Your task to perform on an android device: turn pop-ups off in chrome Image 0: 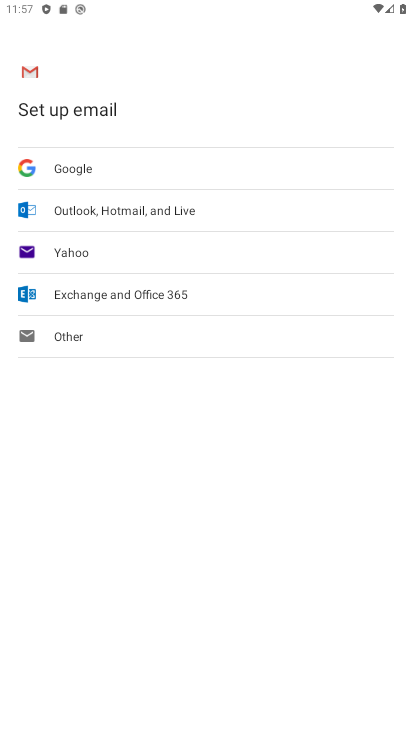
Step 0: press back button
Your task to perform on an android device: turn pop-ups off in chrome Image 1: 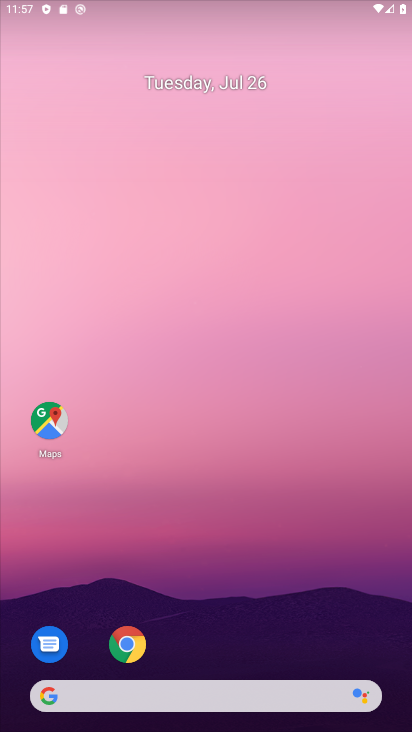
Step 1: drag from (210, 610) to (191, 235)
Your task to perform on an android device: turn pop-ups off in chrome Image 2: 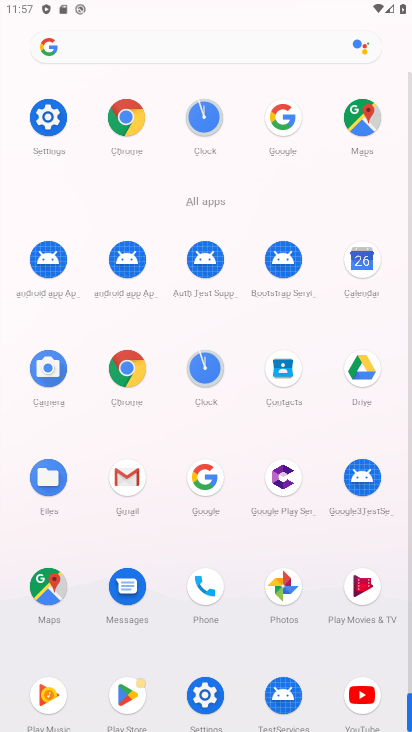
Step 2: click (133, 126)
Your task to perform on an android device: turn pop-ups off in chrome Image 3: 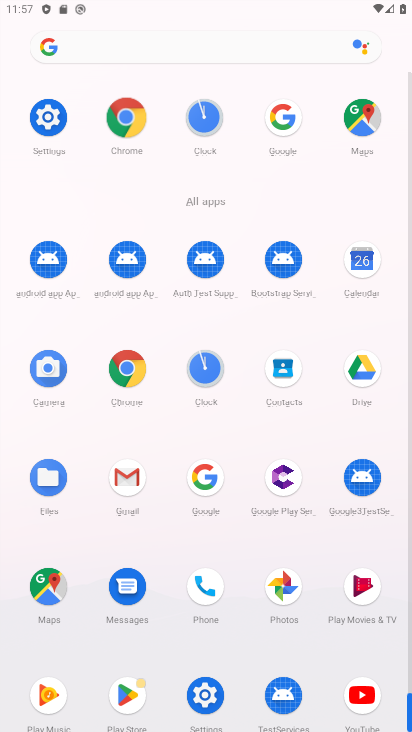
Step 3: click (135, 123)
Your task to perform on an android device: turn pop-ups off in chrome Image 4: 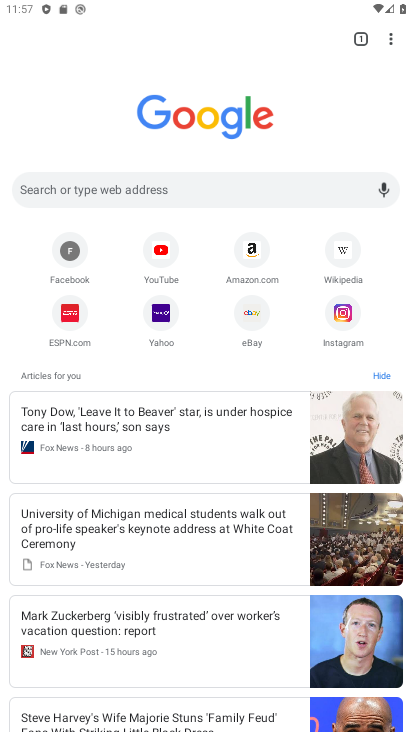
Step 4: drag from (392, 47) to (230, 333)
Your task to perform on an android device: turn pop-ups off in chrome Image 5: 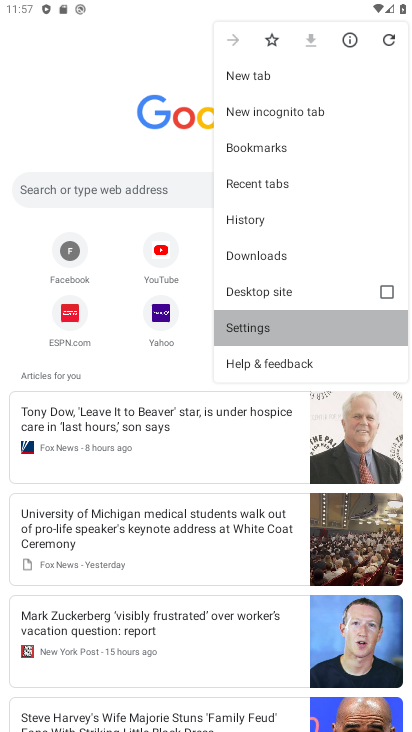
Step 5: click (235, 335)
Your task to perform on an android device: turn pop-ups off in chrome Image 6: 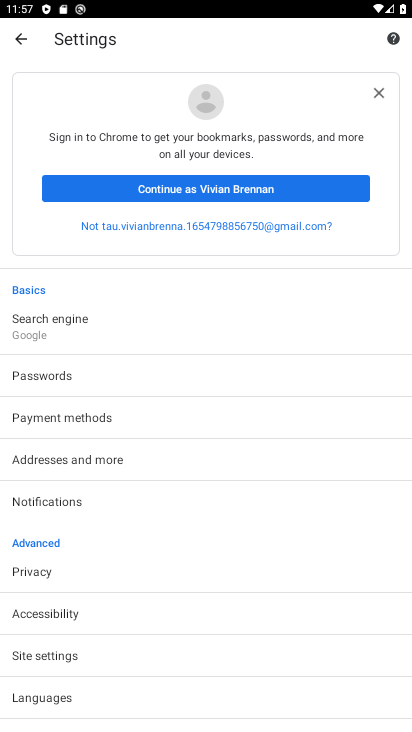
Step 6: drag from (135, 550) to (166, 188)
Your task to perform on an android device: turn pop-ups off in chrome Image 7: 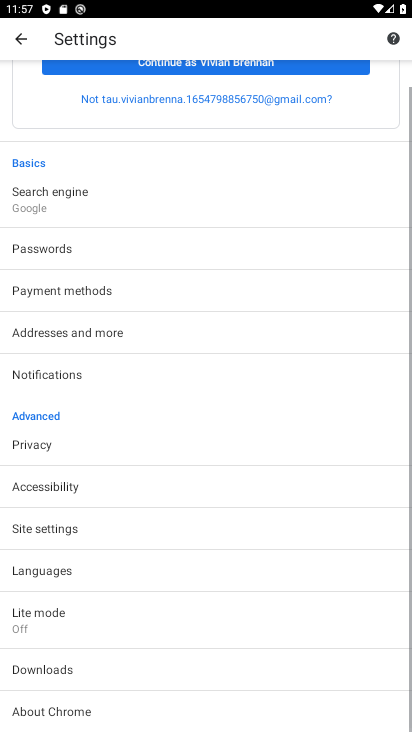
Step 7: drag from (199, 496) to (222, 230)
Your task to perform on an android device: turn pop-ups off in chrome Image 8: 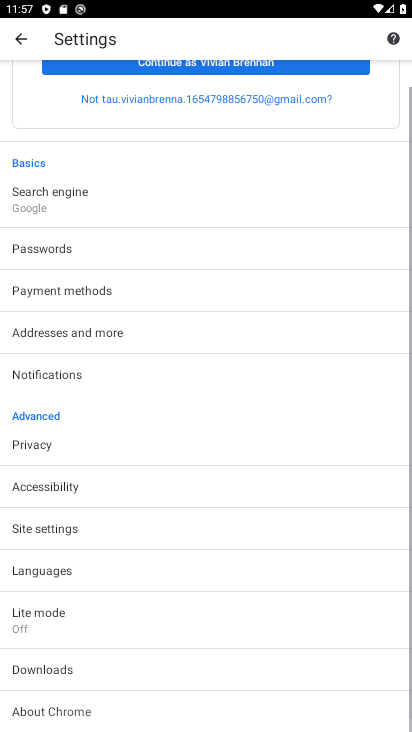
Step 8: drag from (249, 545) to (278, 201)
Your task to perform on an android device: turn pop-ups off in chrome Image 9: 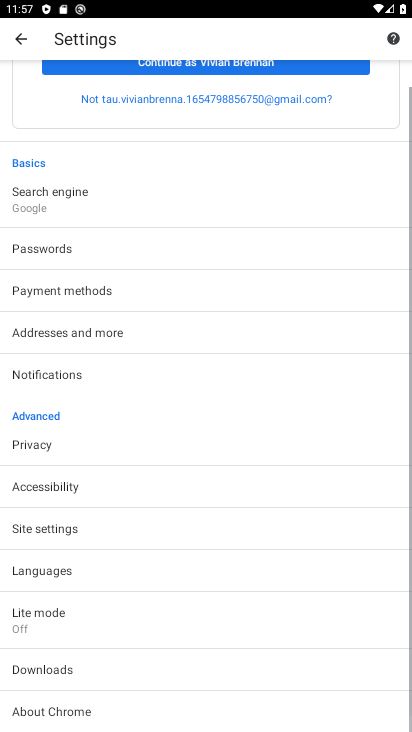
Step 9: drag from (228, 523) to (267, 189)
Your task to perform on an android device: turn pop-ups off in chrome Image 10: 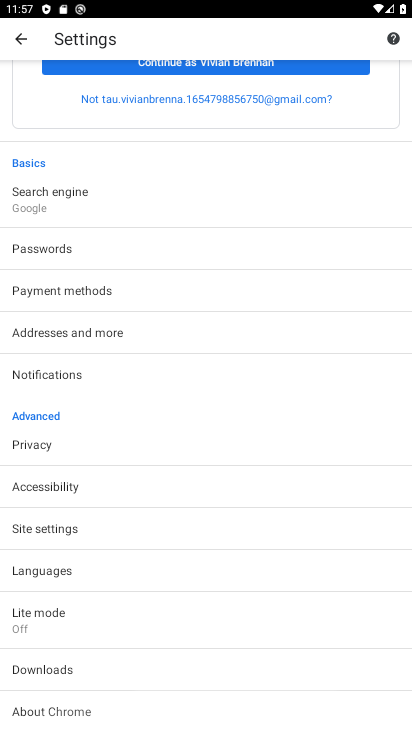
Step 10: drag from (254, 586) to (224, 115)
Your task to perform on an android device: turn pop-ups off in chrome Image 11: 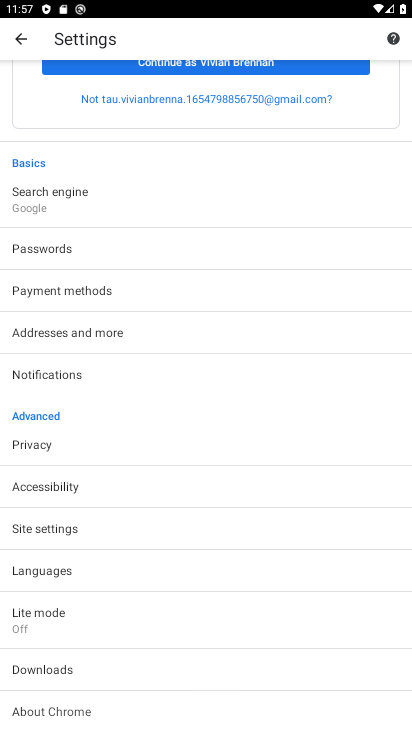
Step 11: drag from (153, 484) to (117, 130)
Your task to perform on an android device: turn pop-ups off in chrome Image 12: 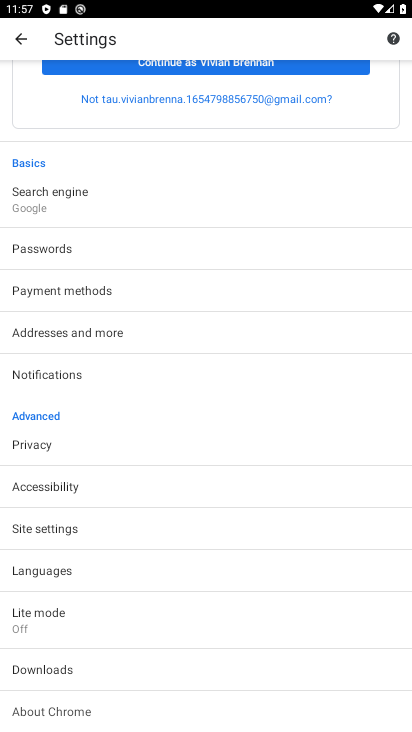
Step 12: drag from (98, 445) to (98, 331)
Your task to perform on an android device: turn pop-ups off in chrome Image 13: 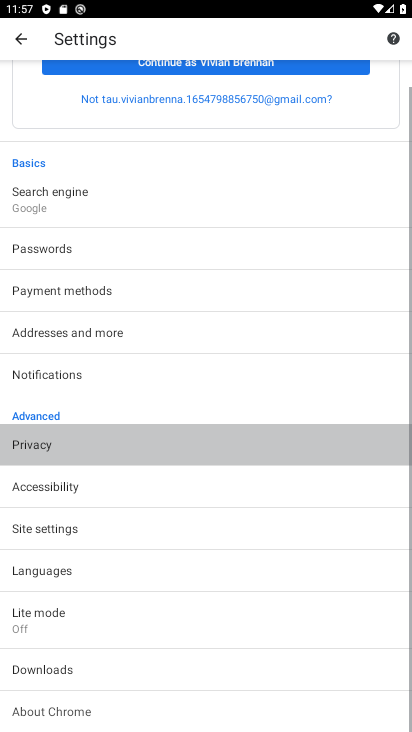
Step 13: drag from (98, 486) to (95, 374)
Your task to perform on an android device: turn pop-ups off in chrome Image 14: 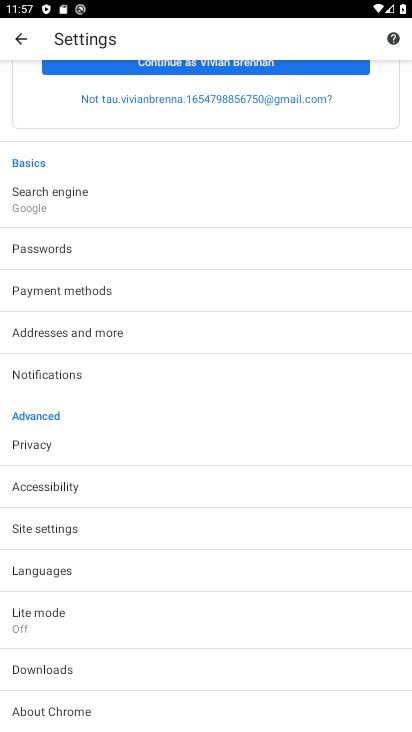
Step 14: drag from (61, 549) to (144, 248)
Your task to perform on an android device: turn pop-ups off in chrome Image 15: 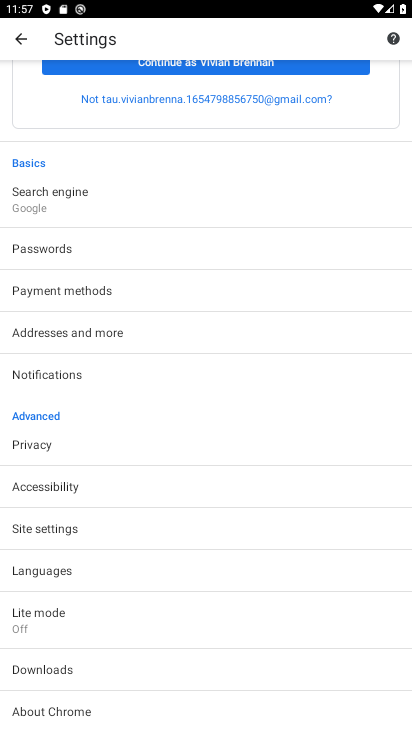
Step 15: click (34, 528)
Your task to perform on an android device: turn pop-ups off in chrome Image 16: 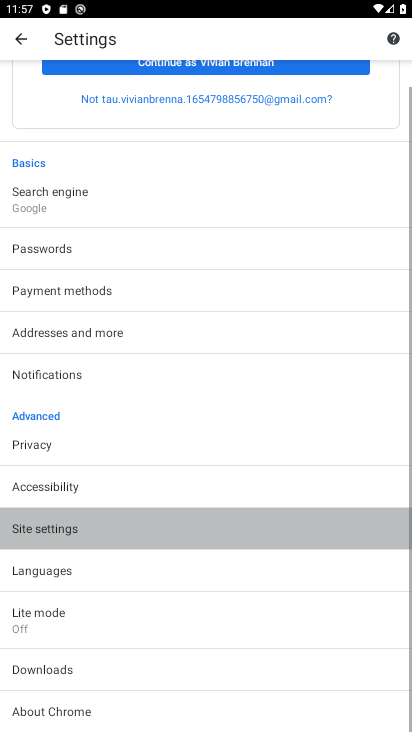
Step 16: click (34, 528)
Your task to perform on an android device: turn pop-ups off in chrome Image 17: 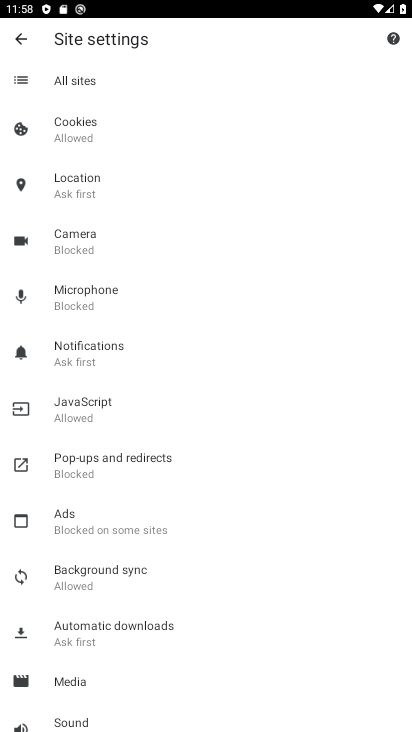
Step 17: click (84, 462)
Your task to perform on an android device: turn pop-ups off in chrome Image 18: 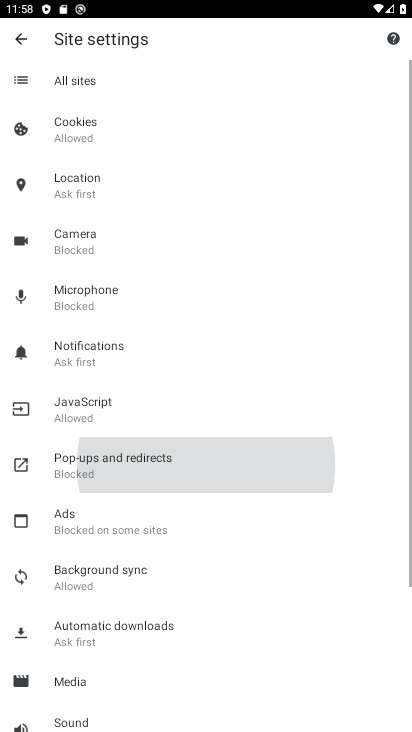
Step 18: click (85, 461)
Your task to perform on an android device: turn pop-ups off in chrome Image 19: 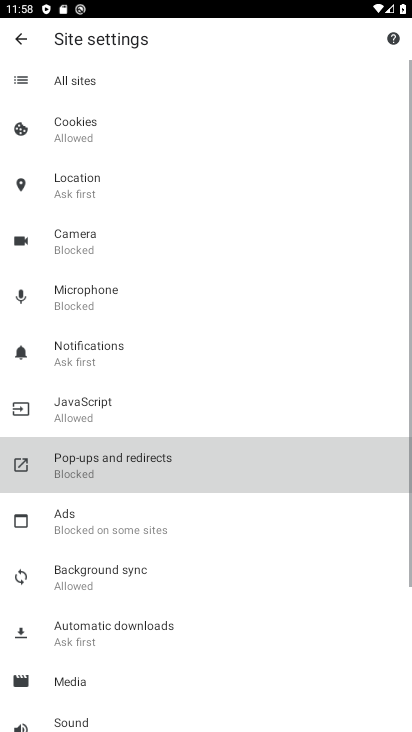
Step 19: click (85, 461)
Your task to perform on an android device: turn pop-ups off in chrome Image 20: 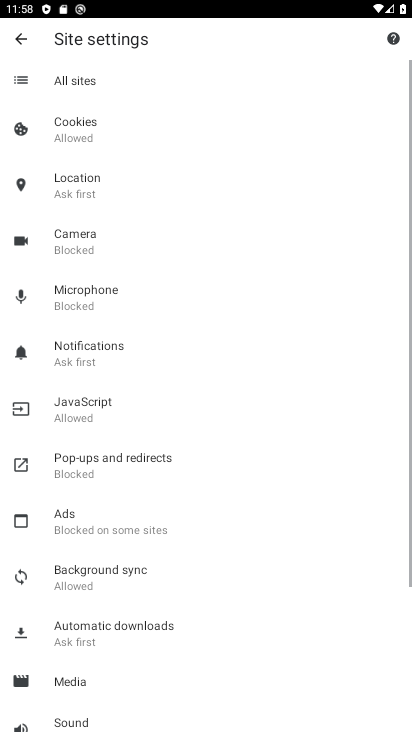
Step 20: click (85, 461)
Your task to perform on an android device: turn pop-ups off in chrome Image 21: 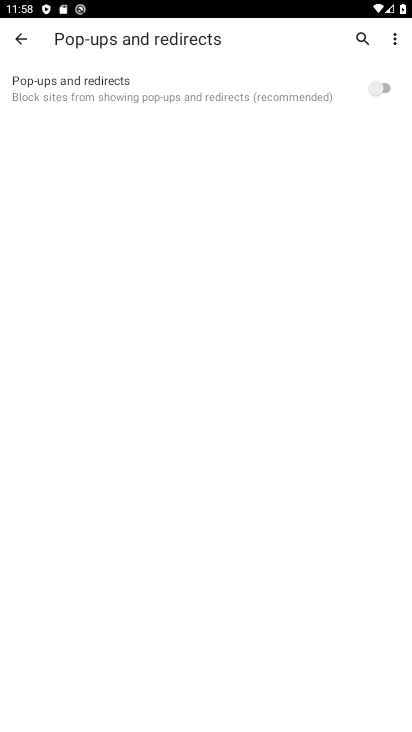
Step 21: task complete